Your task to perform on an android device: open a bookmark in the chrome app Image 0: 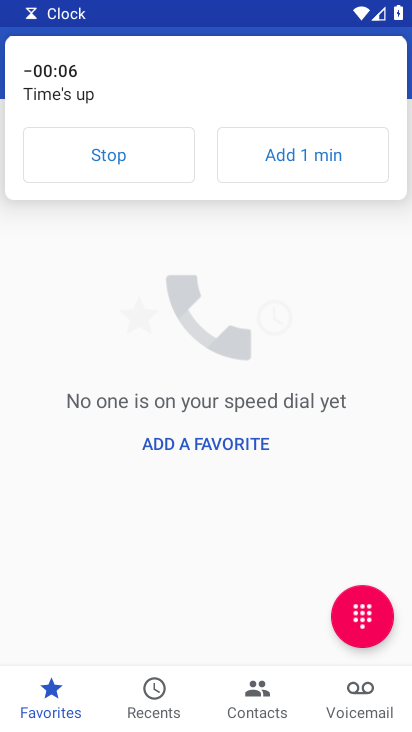
Step 0: click (116, 166)
Your task to perform on an android device: open a bookmark in the chrome app Image 1: 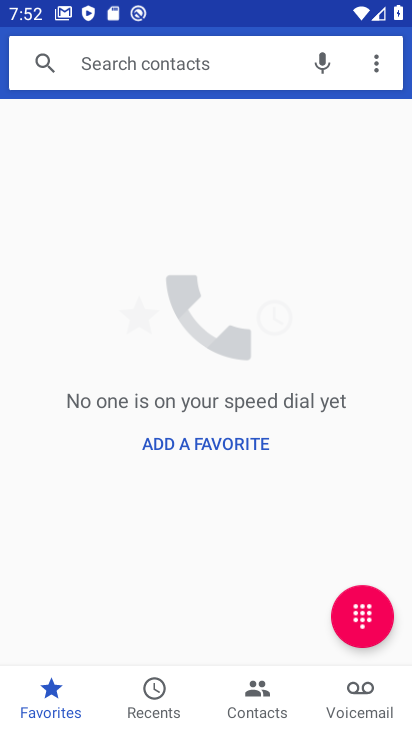
Step 1: press home button
Your task to perform on an android device: open a bookmark in the chrome app Image 2: 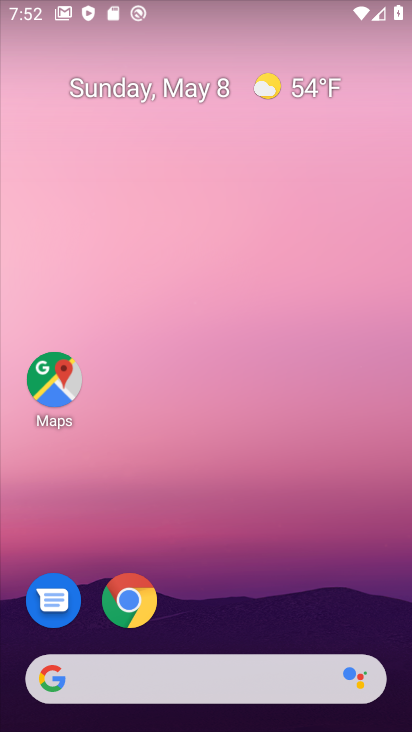
Step 2: click (126, 602)
Your task to perform on an android device: open a bookmark in the chrome app Image 3: 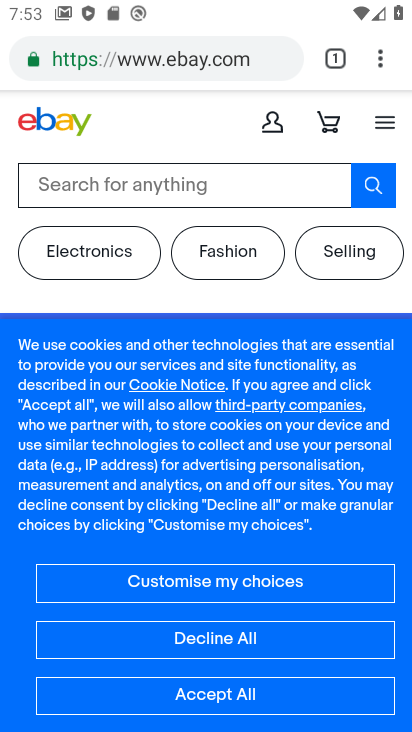
Step 3: click (371, 49)
Your task to perform on an android device: open a bookmark in the chrome app Image 4: 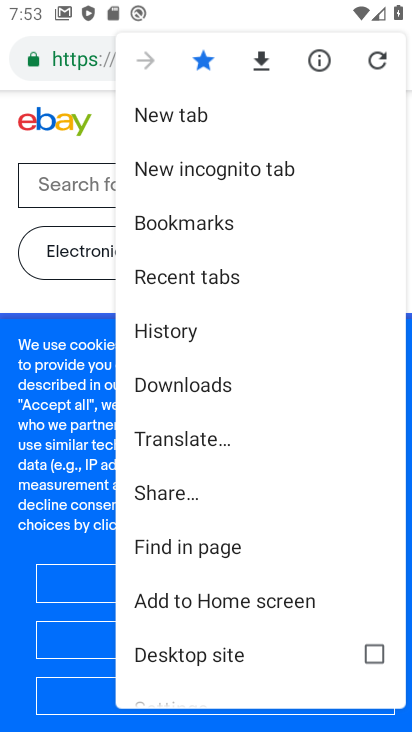
Step 4: click (263, 246)
Your task to perform on an android device: open a bookmark in the chrome app Image 5: 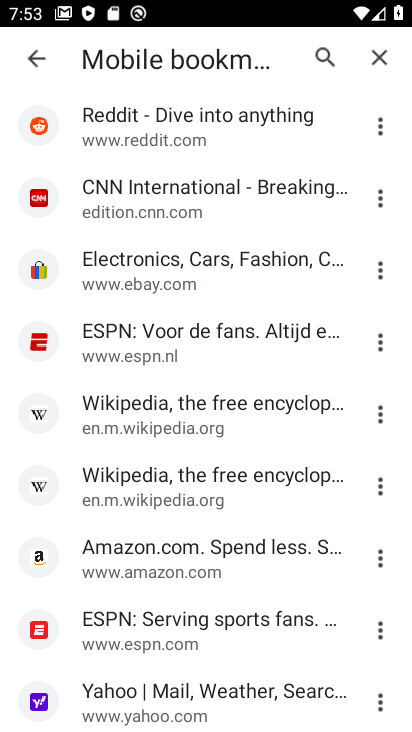
Step 5: click (180, 281)
Your task to perform on an android device: open a bookmark in the chrome app Image 6: 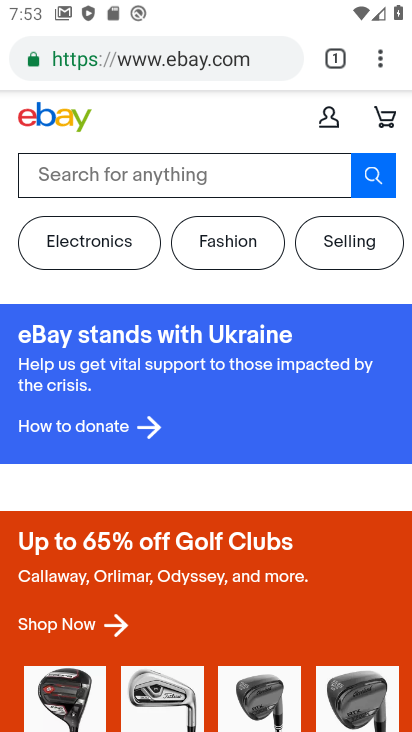
Step 6: task complete